Your task to perform on an android device: change the upload size in google photos Image 0: 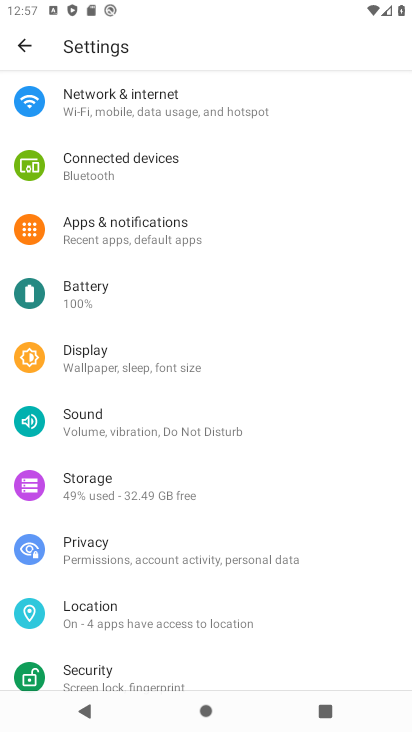
Step 0: press home button
Your task to perform on an android device: change the upload size in google photos Image 1: 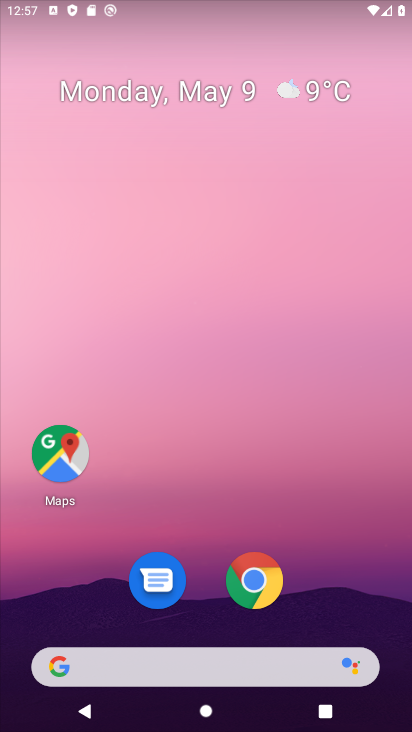
Step 1: drag from (331, 580) to (251, 50)
Your task to perform on an android device: change the upload size in google photos Image 2: 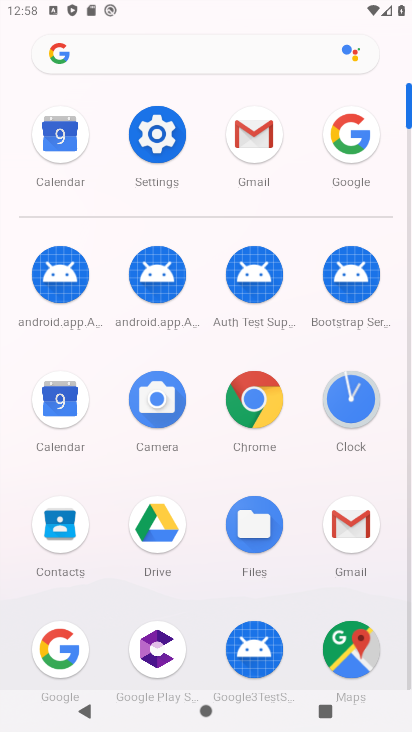
Step 2: drag from (207, 618) to (208, 292)
Your task to perform on an android device: change the upload size in google photos Image 3: 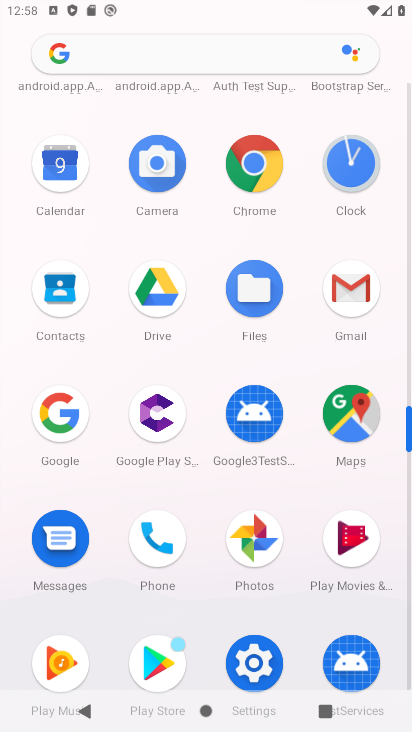
Step 3: click (254, 542)
Your task to perform on an android device: change the upload size in google photos Image 4: 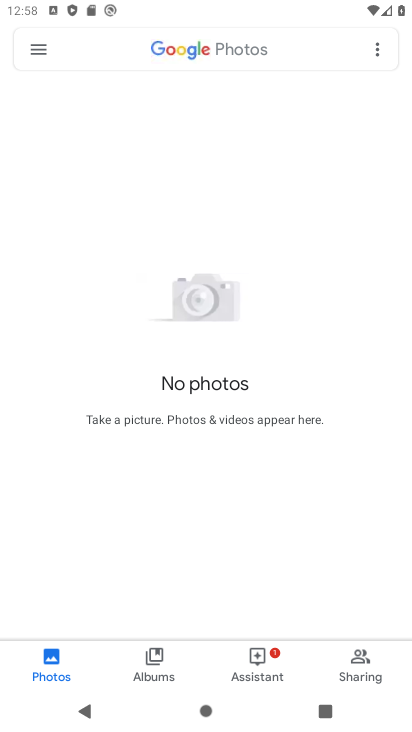
Step 4: click (37, 47)
Your task to perform on an android device: change the upload size in google photos Image 5: 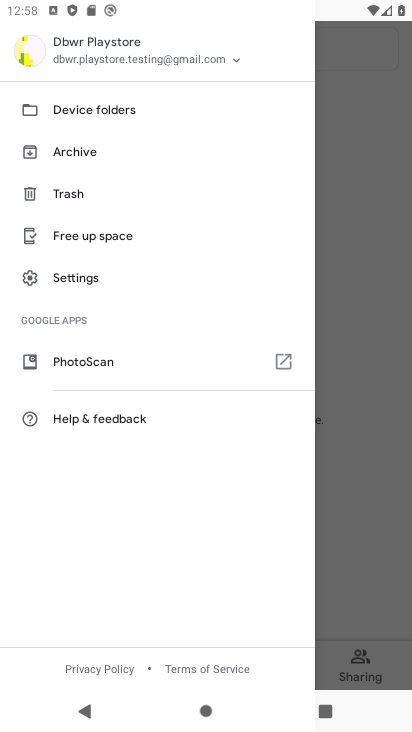
Step 5: click (100, 284)
Your task to perform on an android device: change the upload size in google photos Image 6: 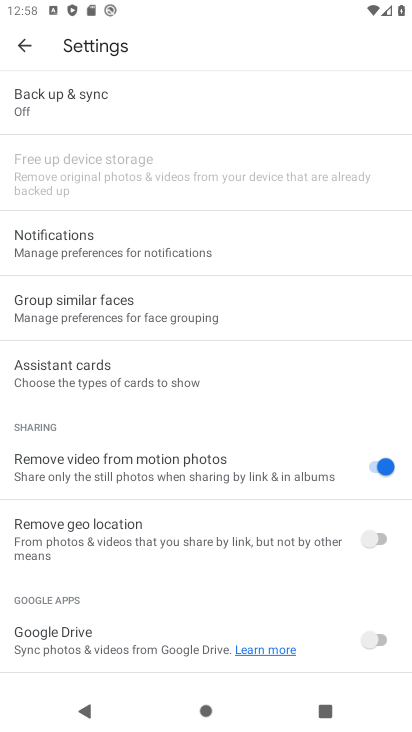
Step 6: click (105, 115)
Your task to perform on an android device: change the upload size in google photos Image 7: 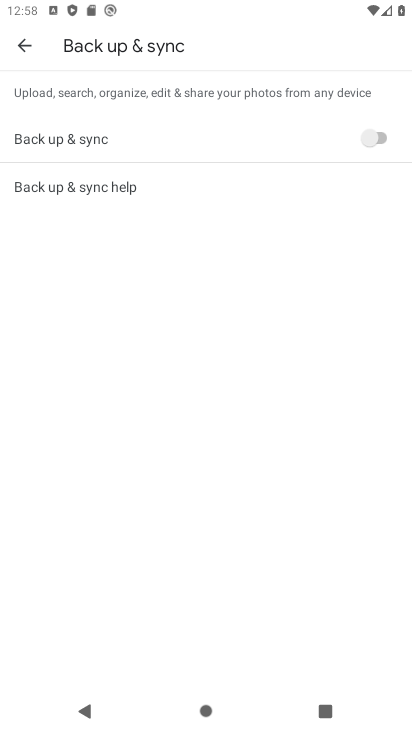
Step 7: click (18, 52)
Your task to perform on an android device: change the upload size in google photos Image 8: 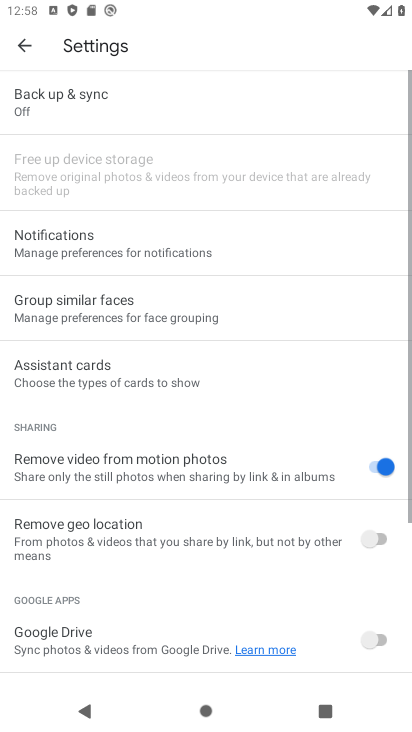
Step 8: click (73, 98)
Your task to perform on an android device: change the upload size in google photos Image 9: 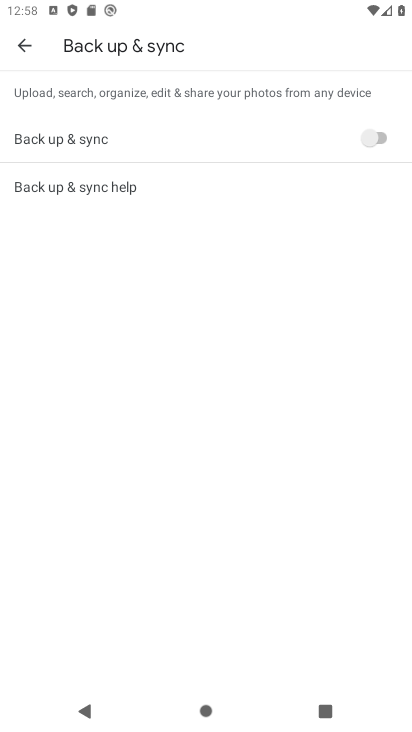
Step 9: click (371, 127)
Your task to perform on an android device: change the upload size in google photos Image 10: 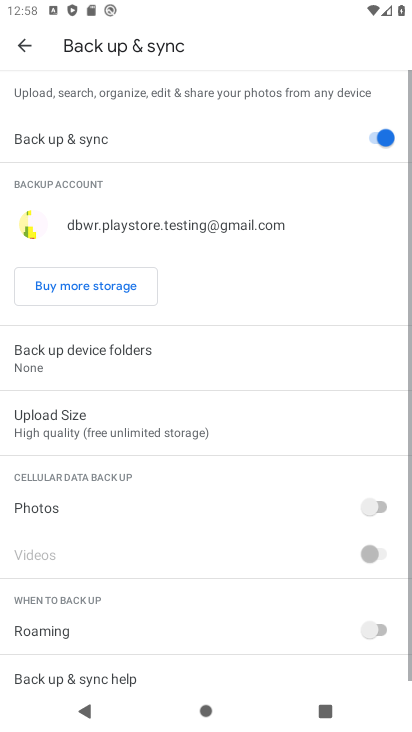
Step 10: click (90, 438)
Your task to perform on an android device: change the upload size in google photos Image 11: 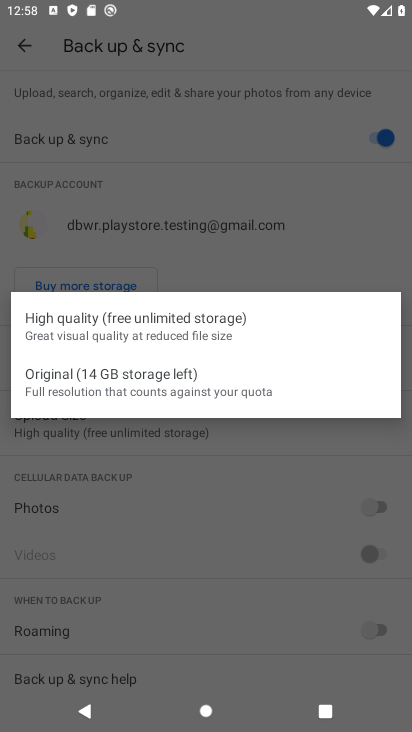
Step 11: click (79, 392)
Your task to perform on an android device: change the upload size in google photos Image 12: 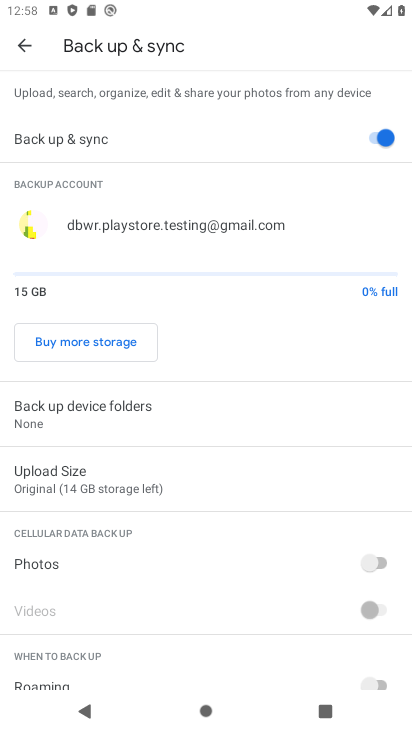
Step 12: task complete